Your task to perform on an android device: turn off smart reply in the gmail app Image 0: 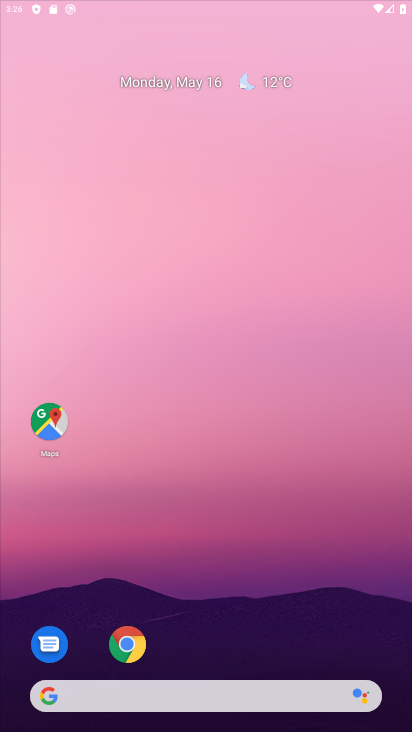
Step 0: press home button
Your task to perform on an android device: turn off smart reply in the gmail app Image 1: 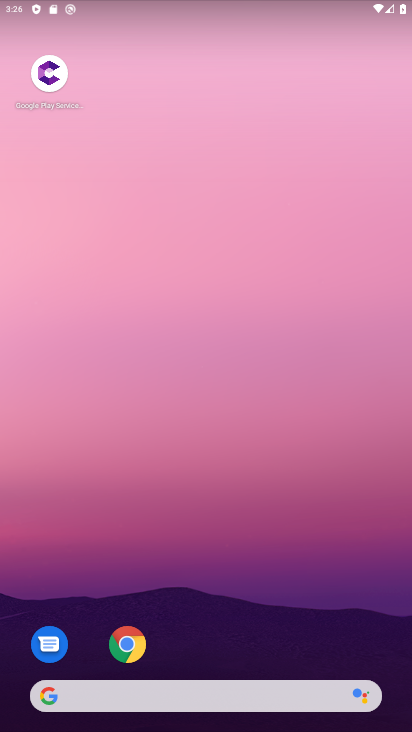
Step 1: drag from (287, 597) to (171, 10)
Your task to perform on an android device: turn off smart reply in the gmail app Image 2: 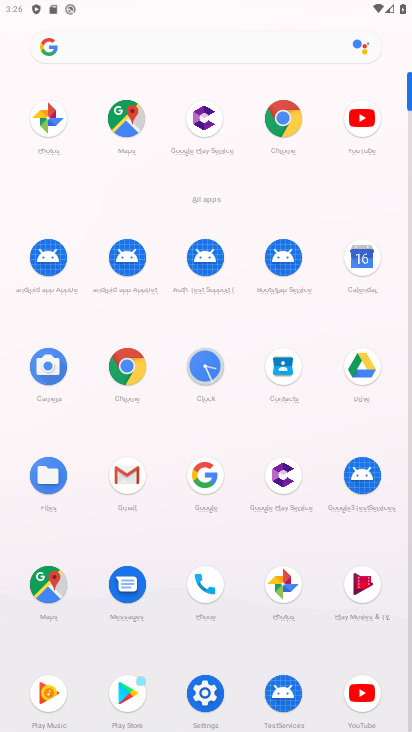
Step 2: click (130, 485)
Your task to perform on an android device: turn off smart reply in the gmail app Image 3: 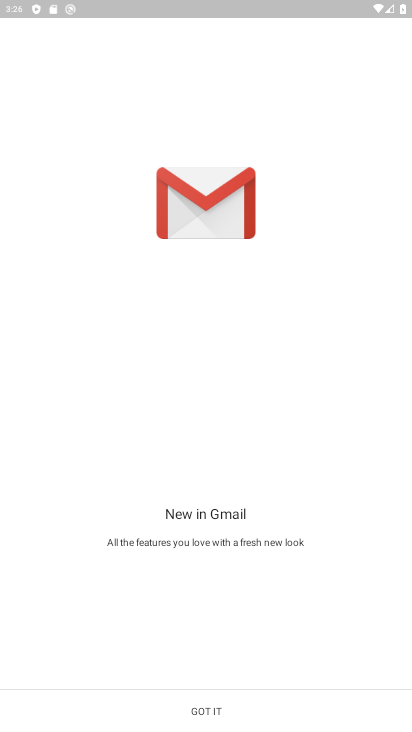
Step 3: click (223, 708)
Your task to perform on an android device: turn off smart reply in the gmail app Image 4: 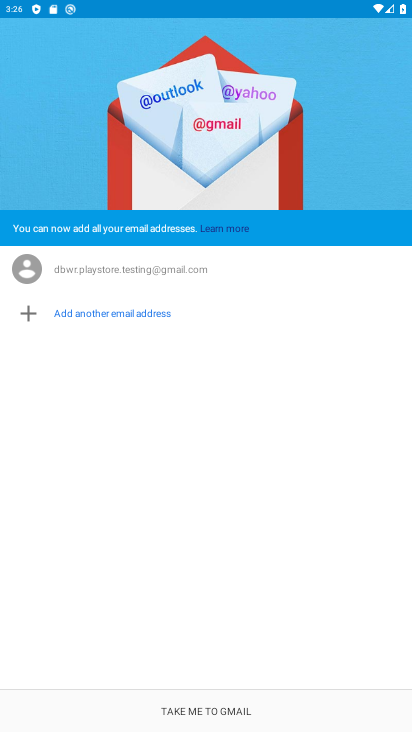
Step 4: click (226, 705)
Your task to perform on an android device: turn off smart reply in the gmail app Image 5: 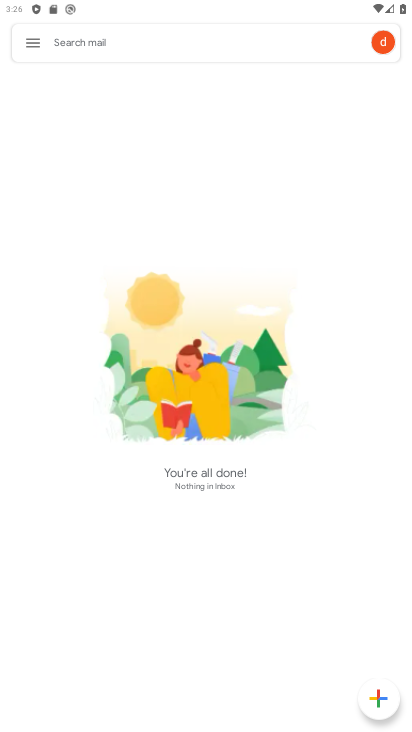
Step 5: click (39, 41)
Your task to perform on an android device: turn off smart reply in the gmail app Image 6: 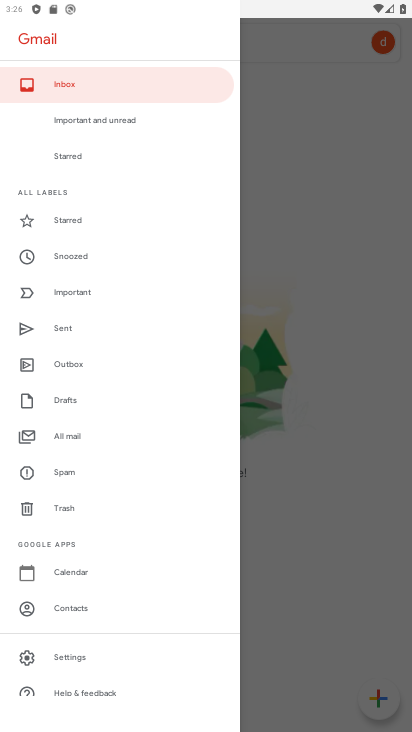
Step 6: click (102, 649)
Your task to perform on an android device: turn off smart reply in the gmail app Image 7: 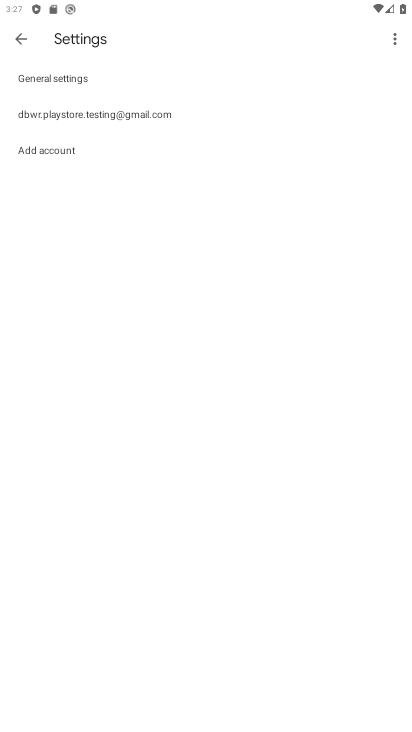
Step 7: click (127, 111)
Your task to perform on an android device: turn off smart reply in the gmail app Image 8: 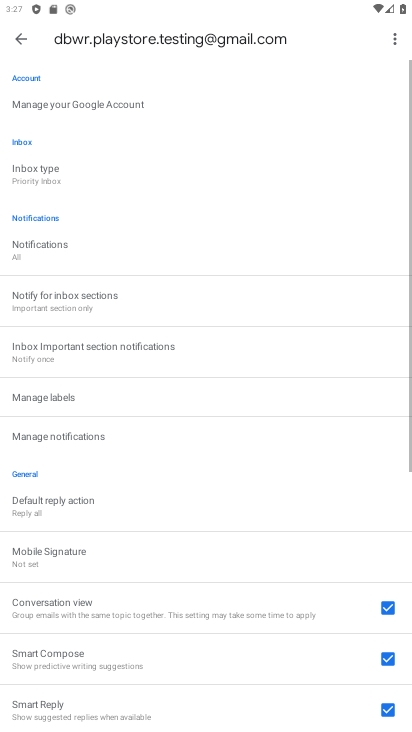
Step 8: drag from (185, 630) to (167, 180)
Your task to perform on an android device: turn off smart reply in the gmail app Image 9: 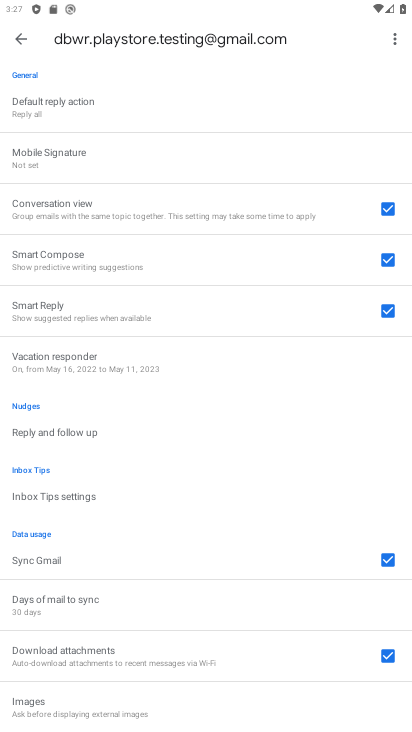
Step 9: click (387, 307)
Your task to perform on an android device: turn off smart reply in the gmail app Image 10: 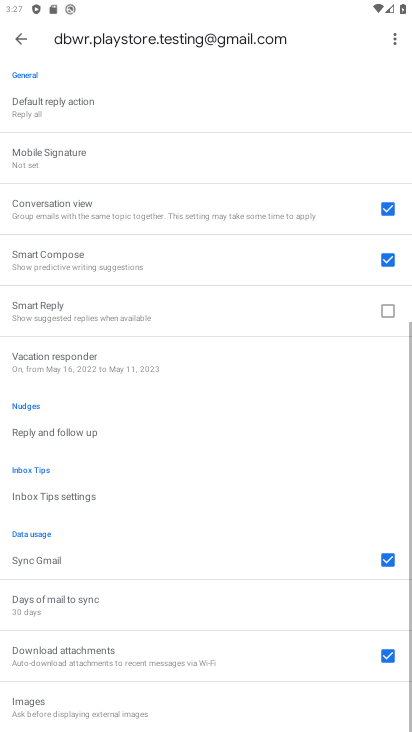
Step 10: task complete